Your task to perform on an android device: all mails in gmail Image 0: 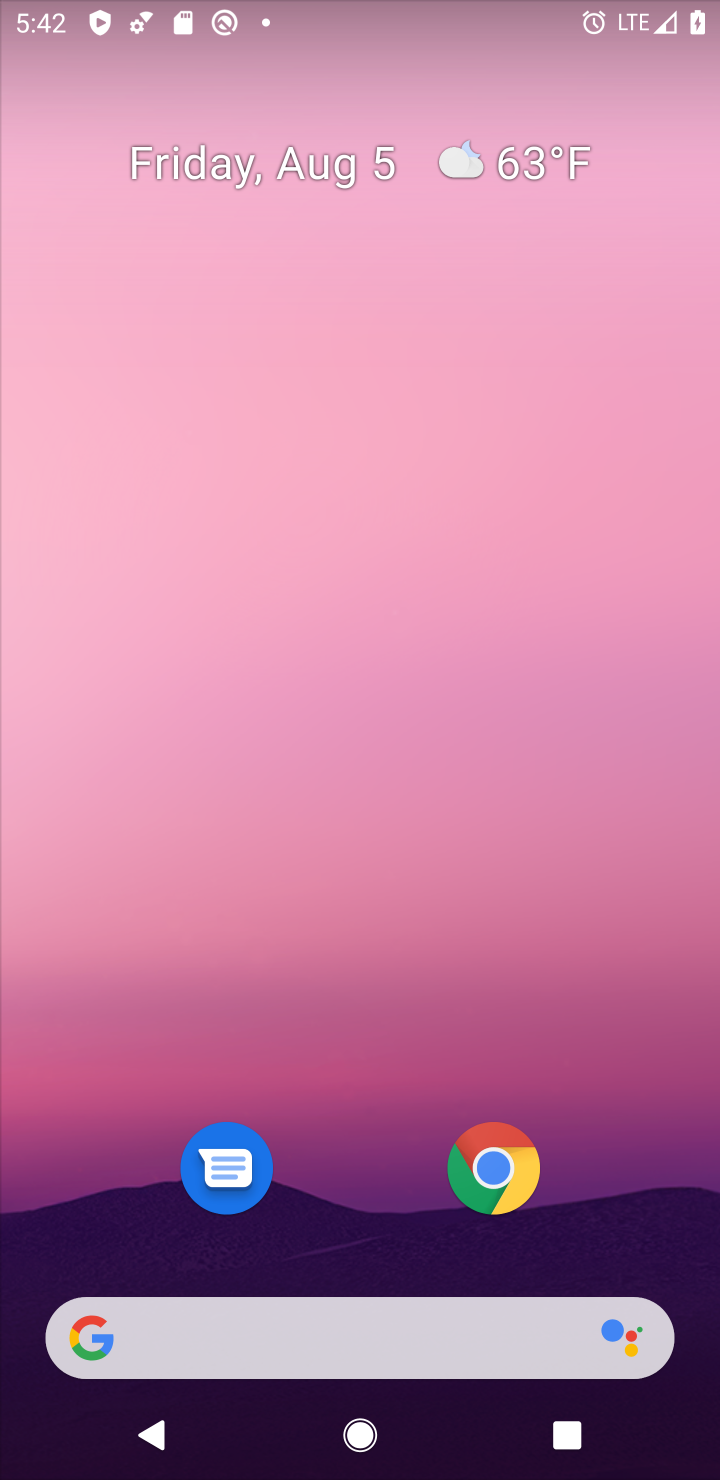
Step 0: drag from (368, 1244) to (450, 2)
Your task to perform on an android device: all mails in gmail Image 1: 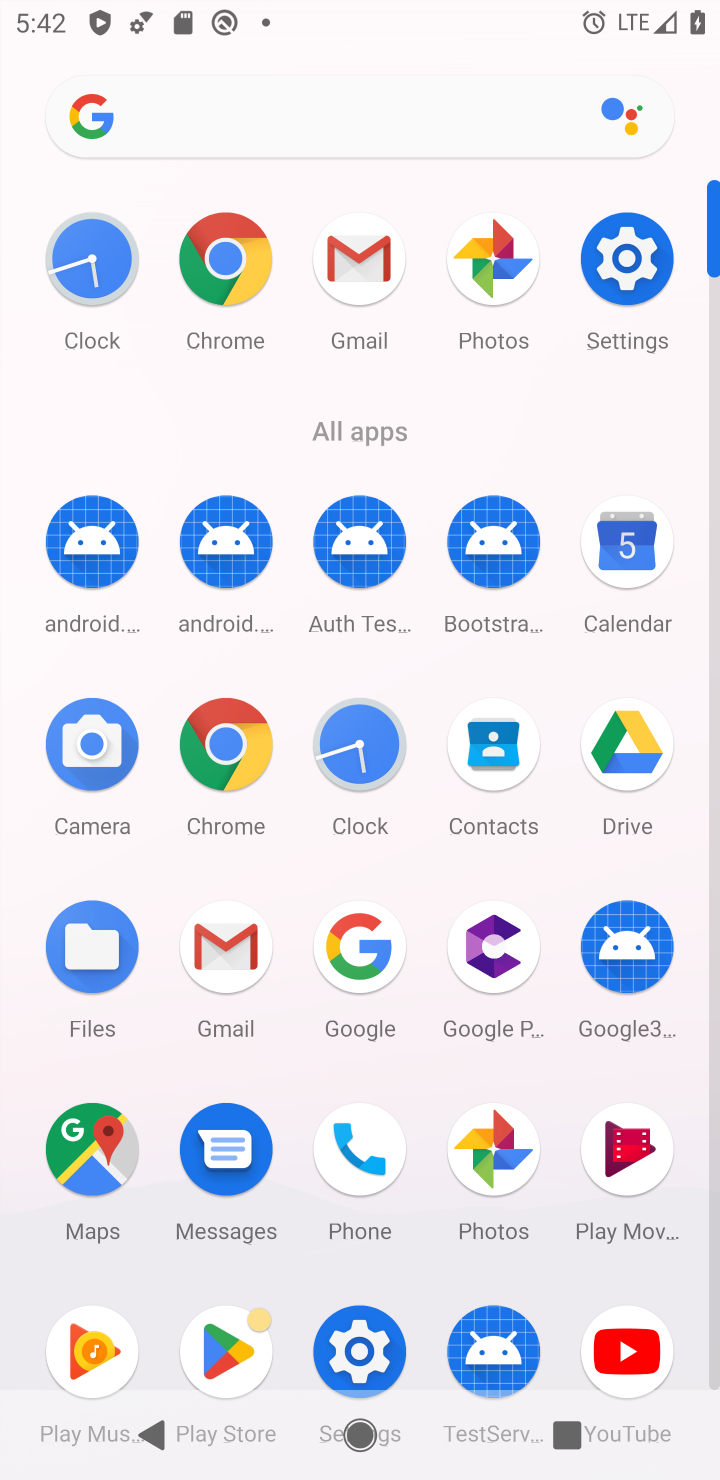
Step 1: click (360, 253)
Your task to perform on an android device: all mails in gmail Image 2: 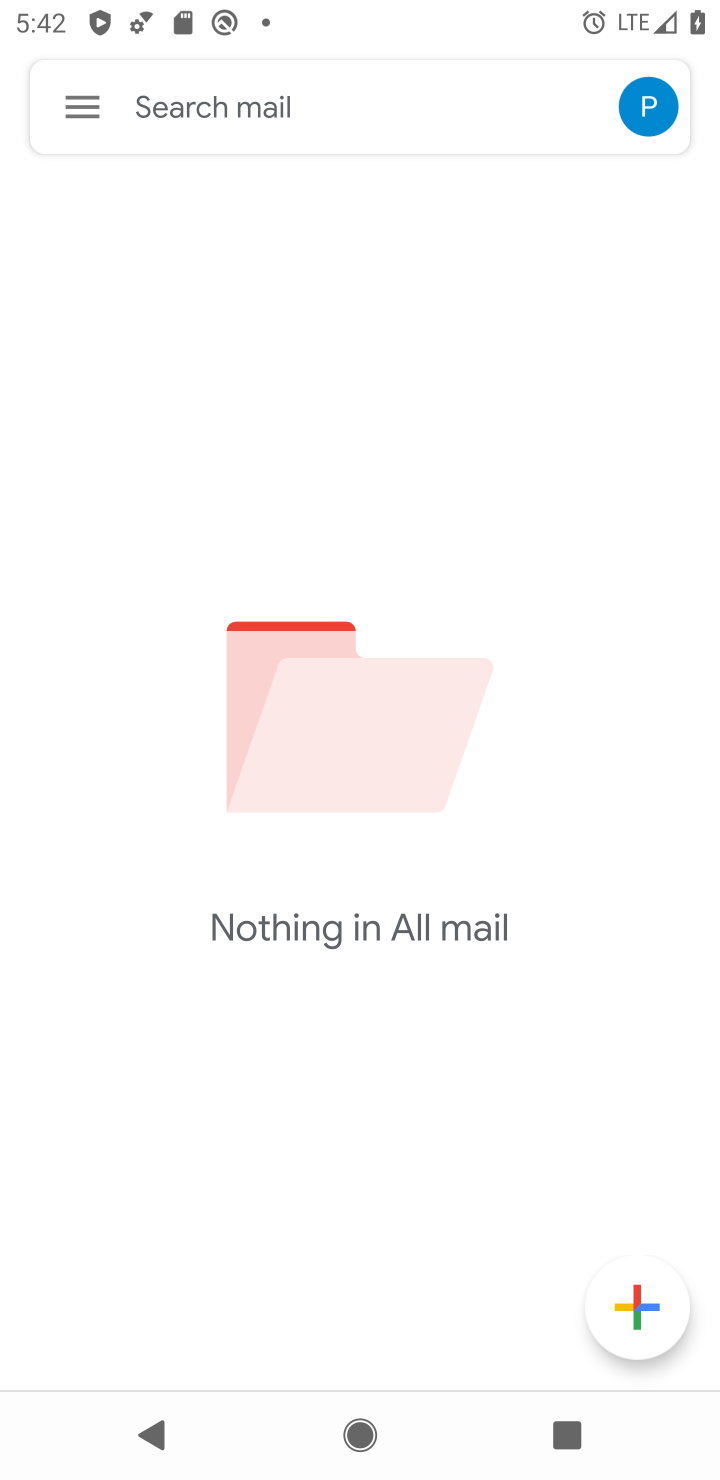
Step 2: click (95, 112)
Your task to perform on an android device: all mails in gmail Image 3: 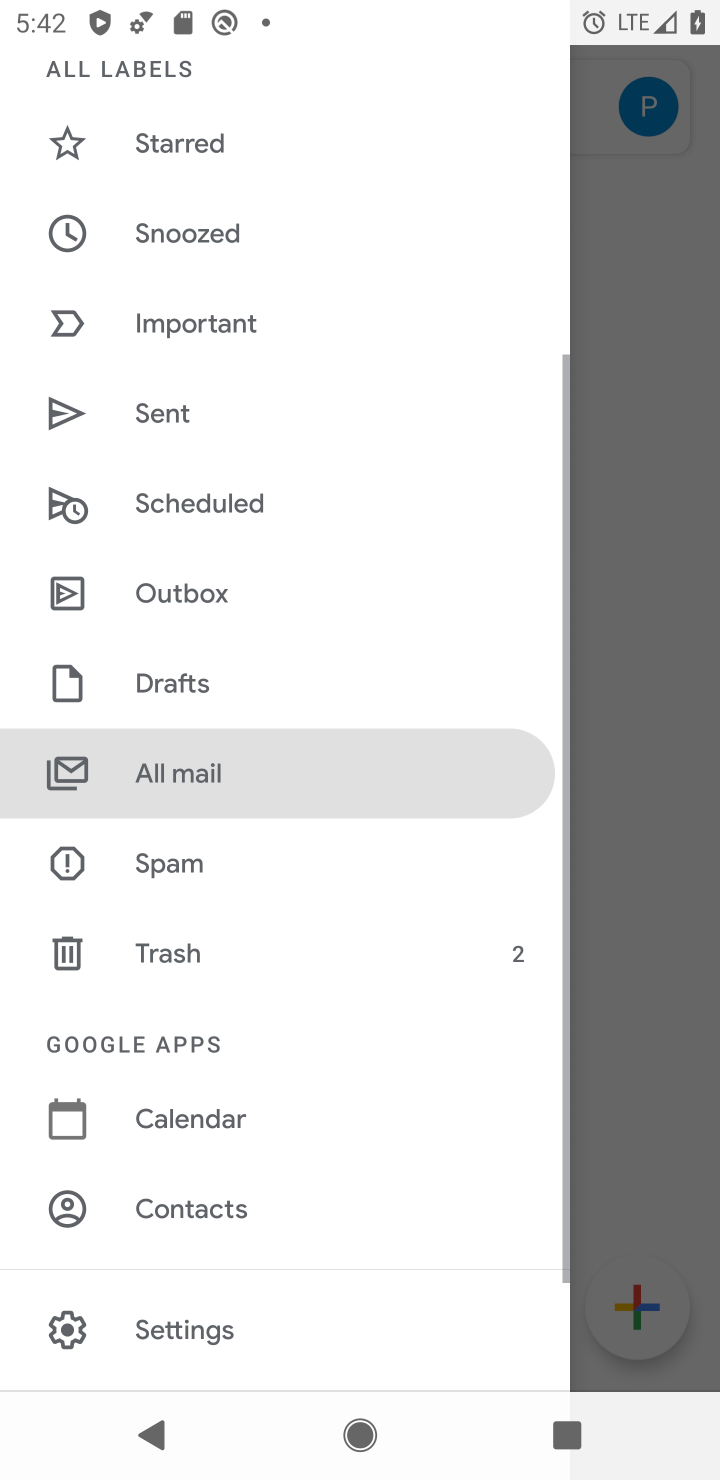
Step 3: click (126, 768)
Your task to perform on an android device: all mails in gmail Image 4: 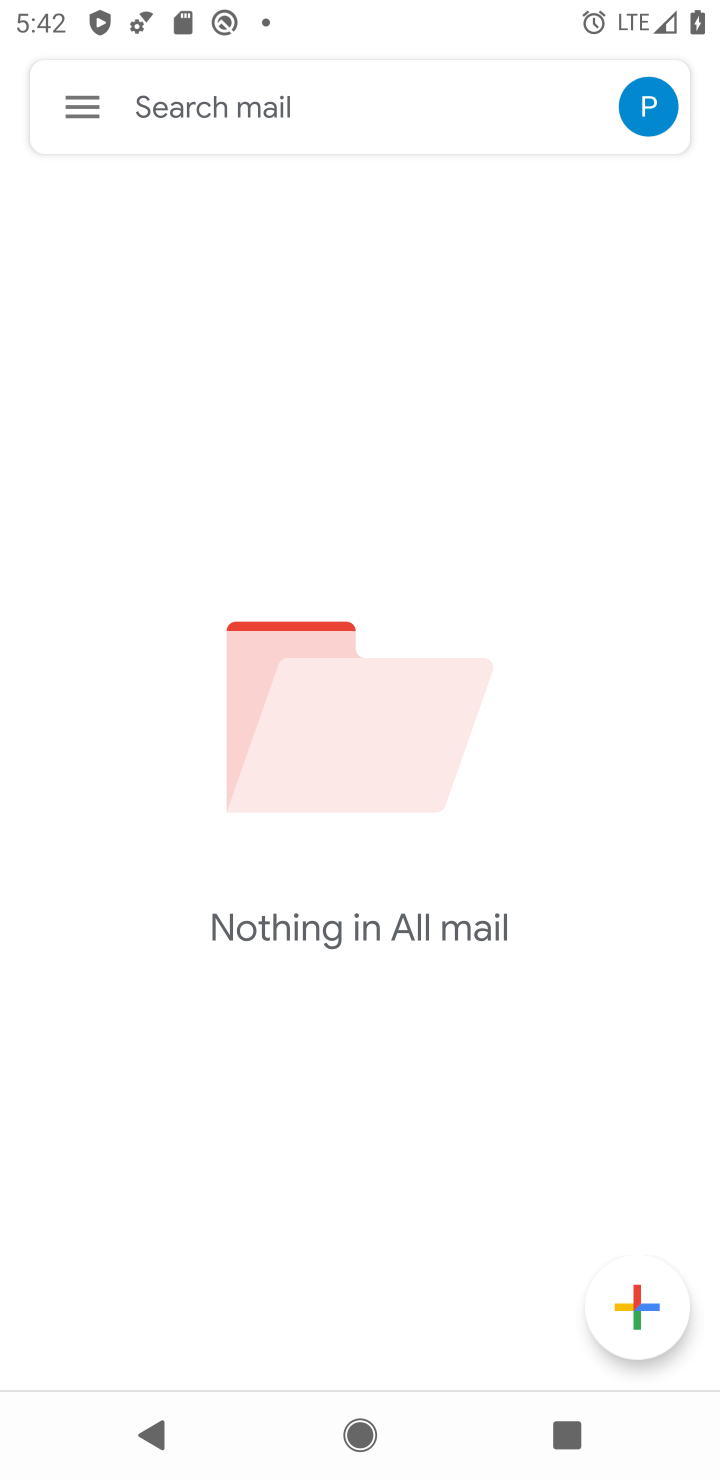
Step 4: task complete